Your task to perform on an android device: Add "amazon basics triple a" to the cart on ebay, then select checkout. Image 0: 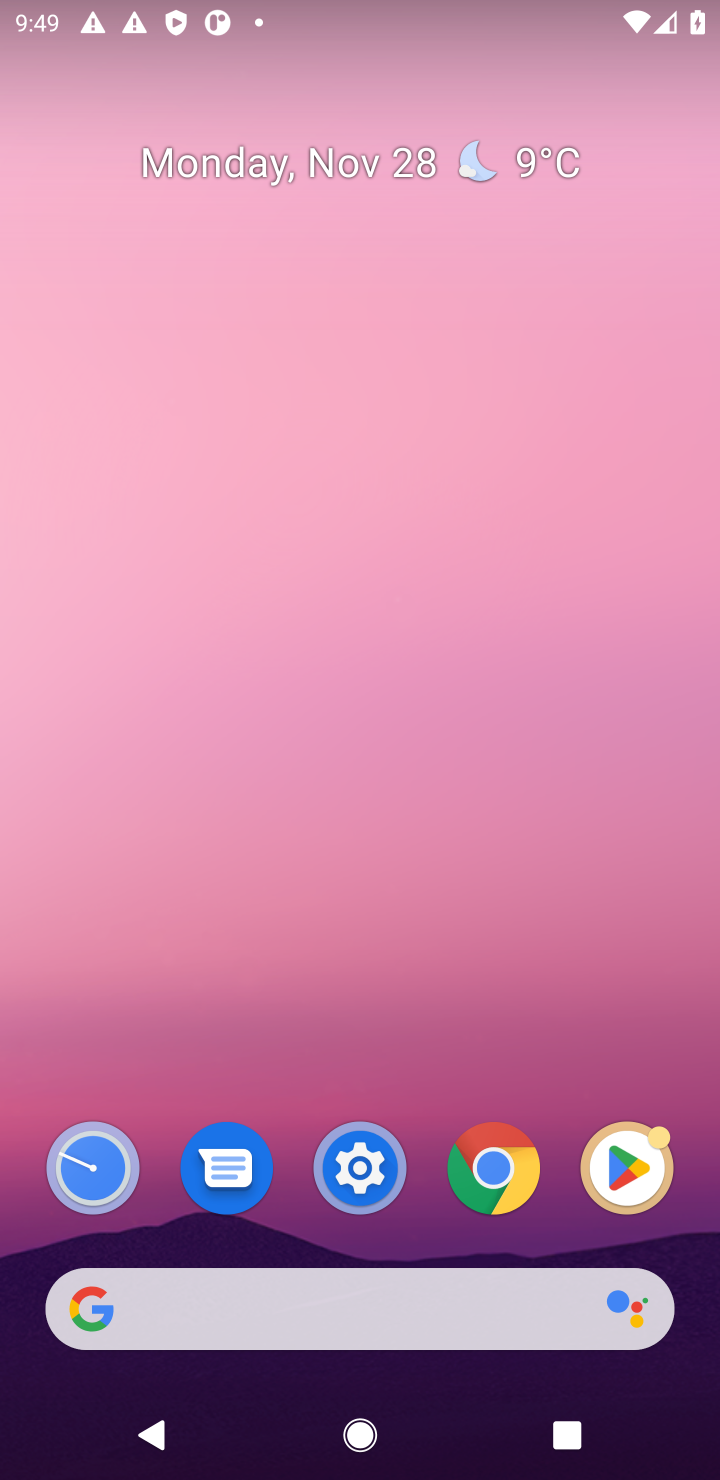
Step 0: click (429, 1334)
Your task to perform on an android device: Add "amazon basics triple a" to the cart on ebay, then select checkout. Image 1: 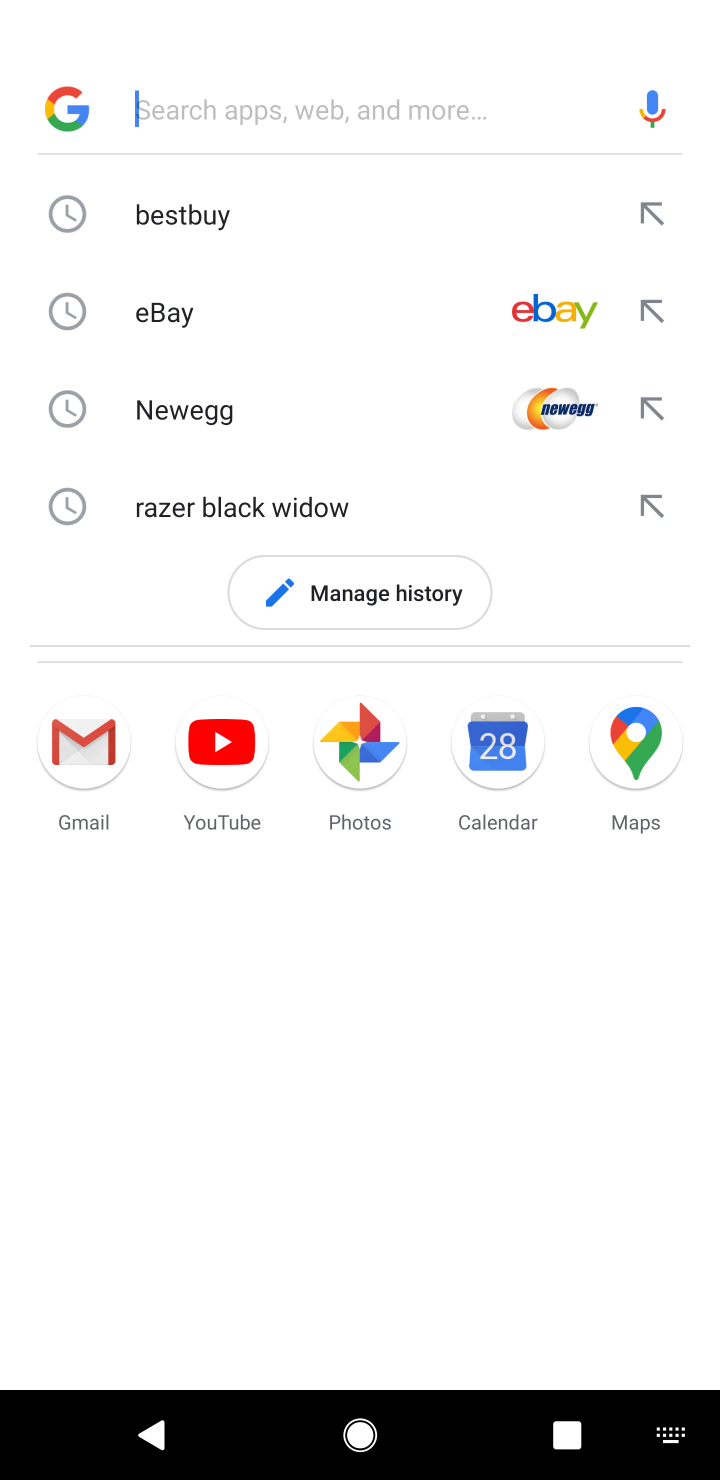
Step 1: type "amazon"
Your task to perform on an android device: Add "amazon basics triple a" to the cart on ebay, then select checkout. Image 2: 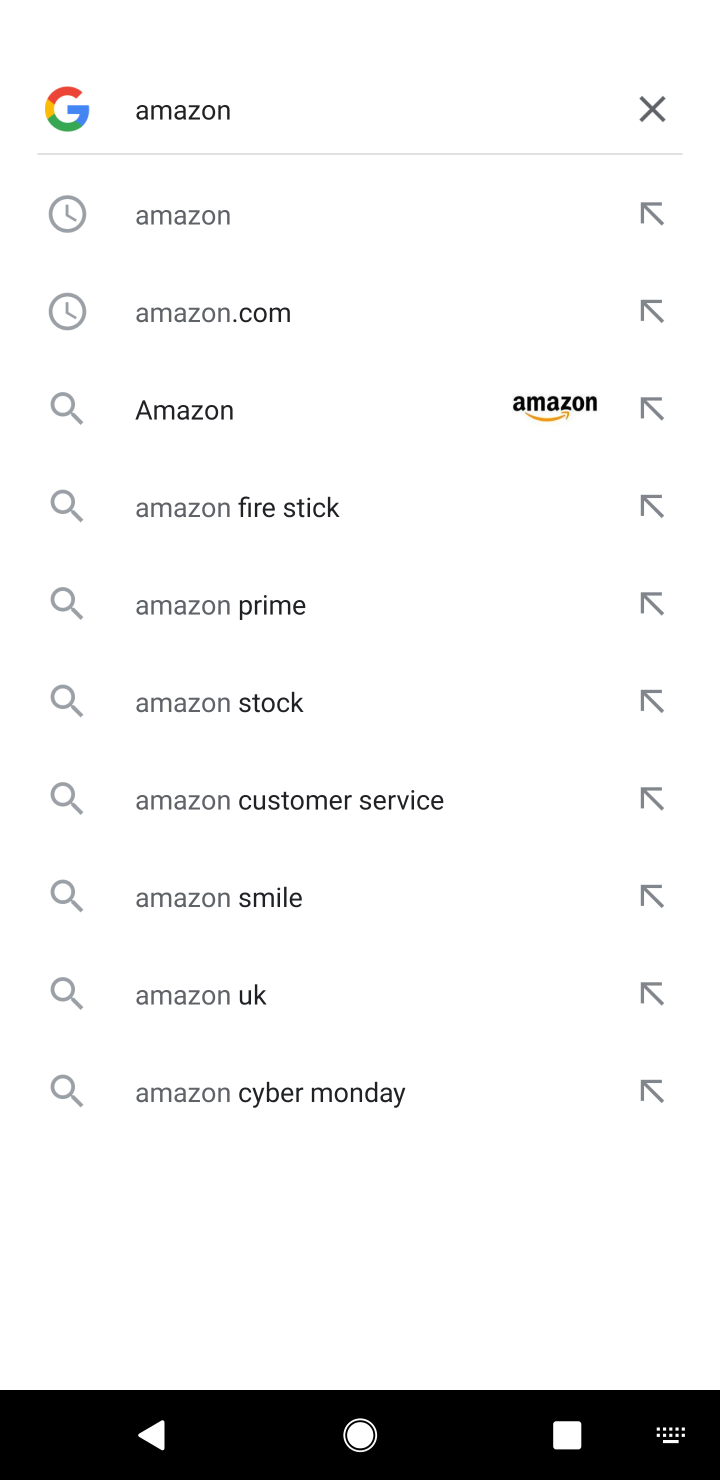
Step 2: click (408, 426)
Your task to perform on an android device: Add "amazon basics triple a" to the cart on ebay, then select checkout. Image 3: 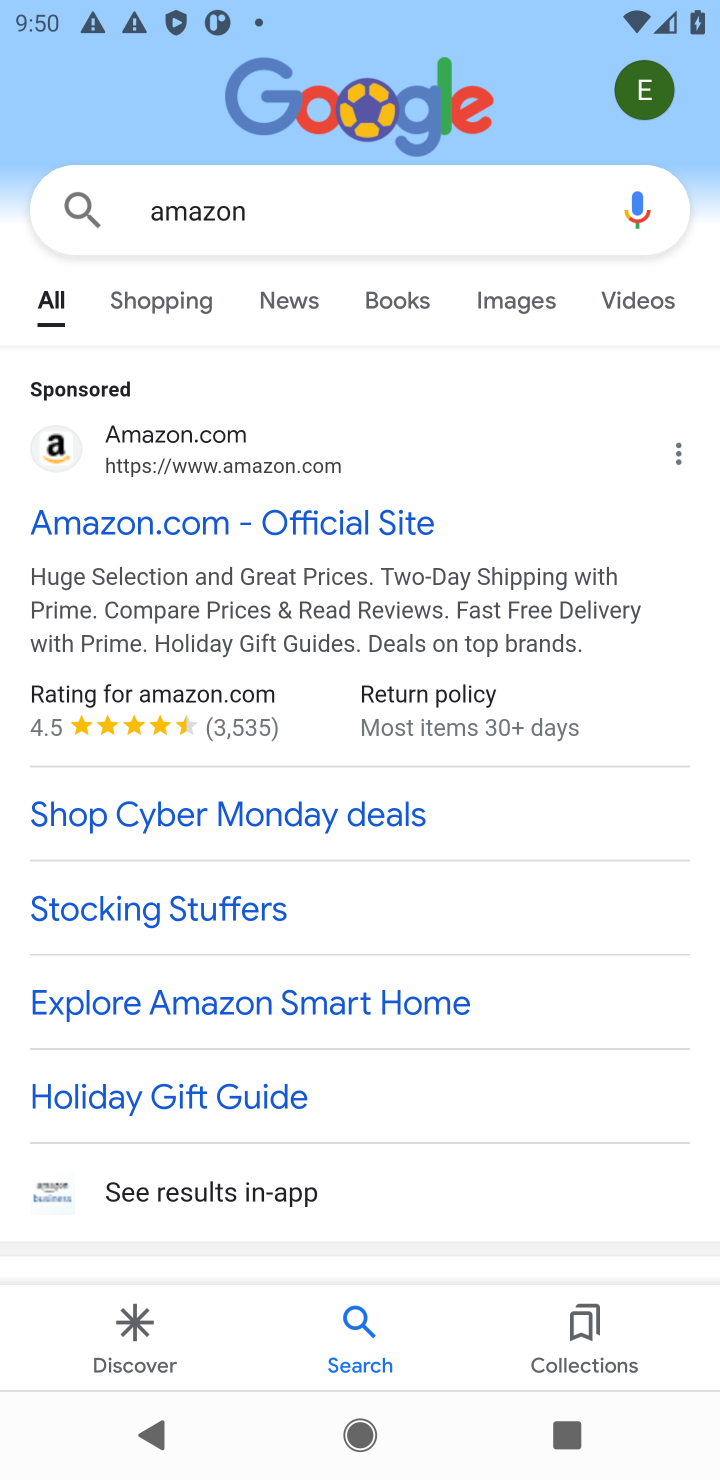
Step 3: click (353, 491)
Your task to perform on an android device: Add "amazon basics triple a" to the cart on ebay, then select checkout. Image 4: 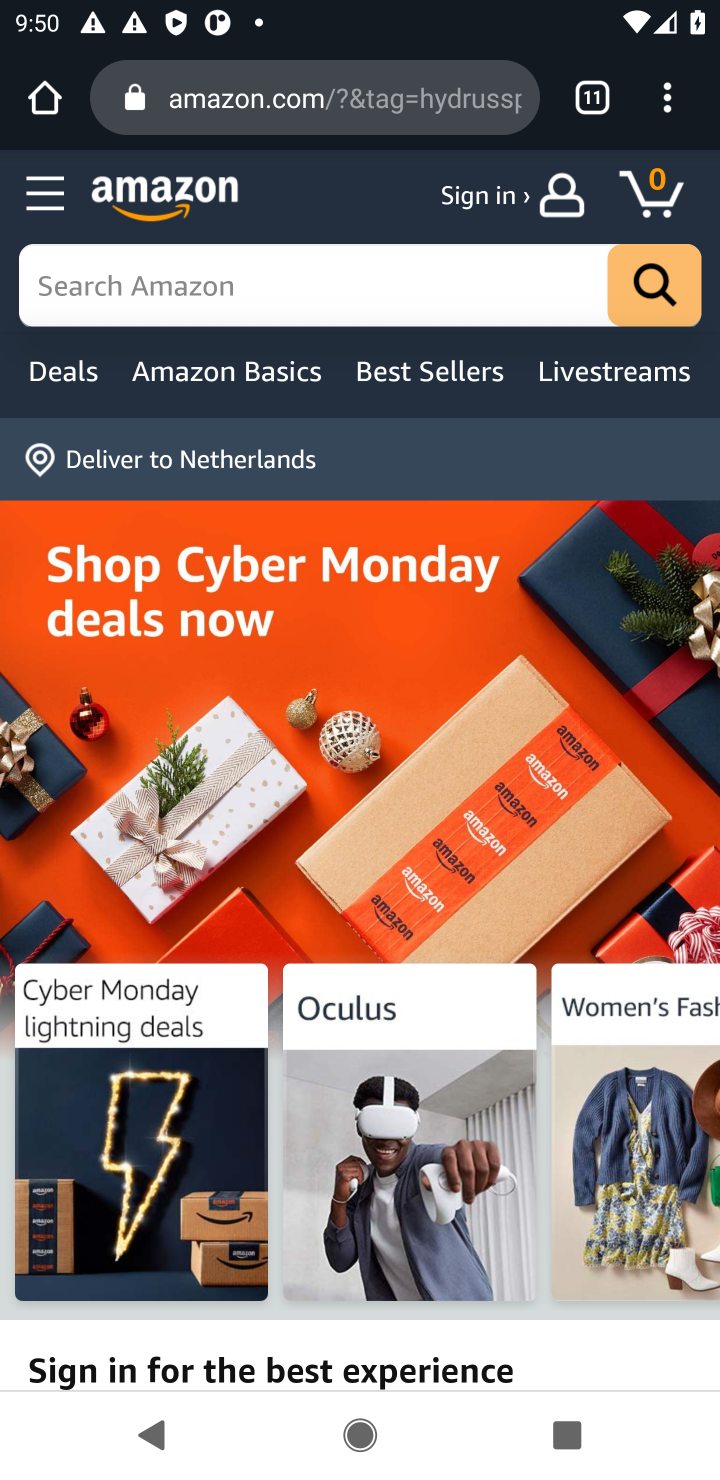
Step 4: click (180, 251)
Your task to perform on an android device: Add "amazon basics triple a" to the cart on ebay, then select checkout. Image 5: 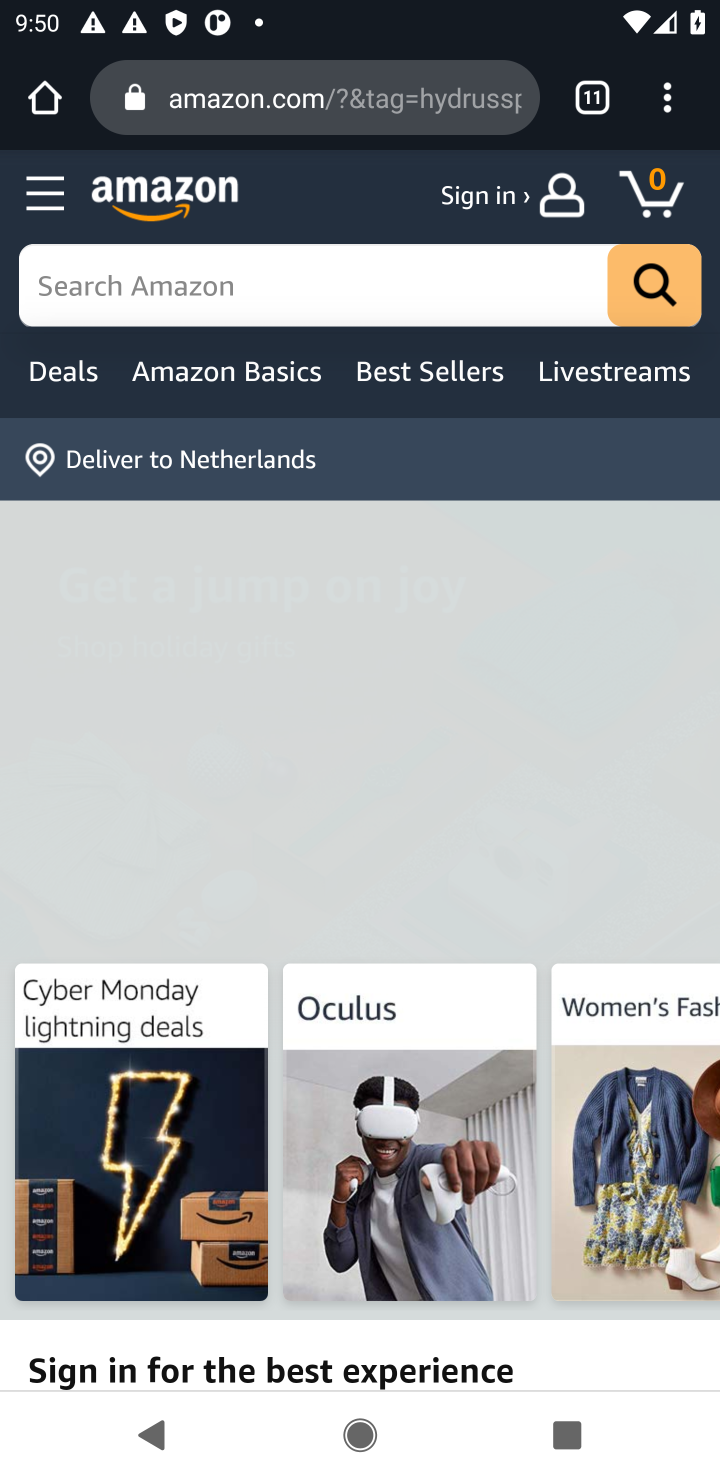
Step 5: click (197, 267)
Your task to perform on an android device: Add "amazon basics triple a" to the cart on ebay, then select checkout. Image 6: 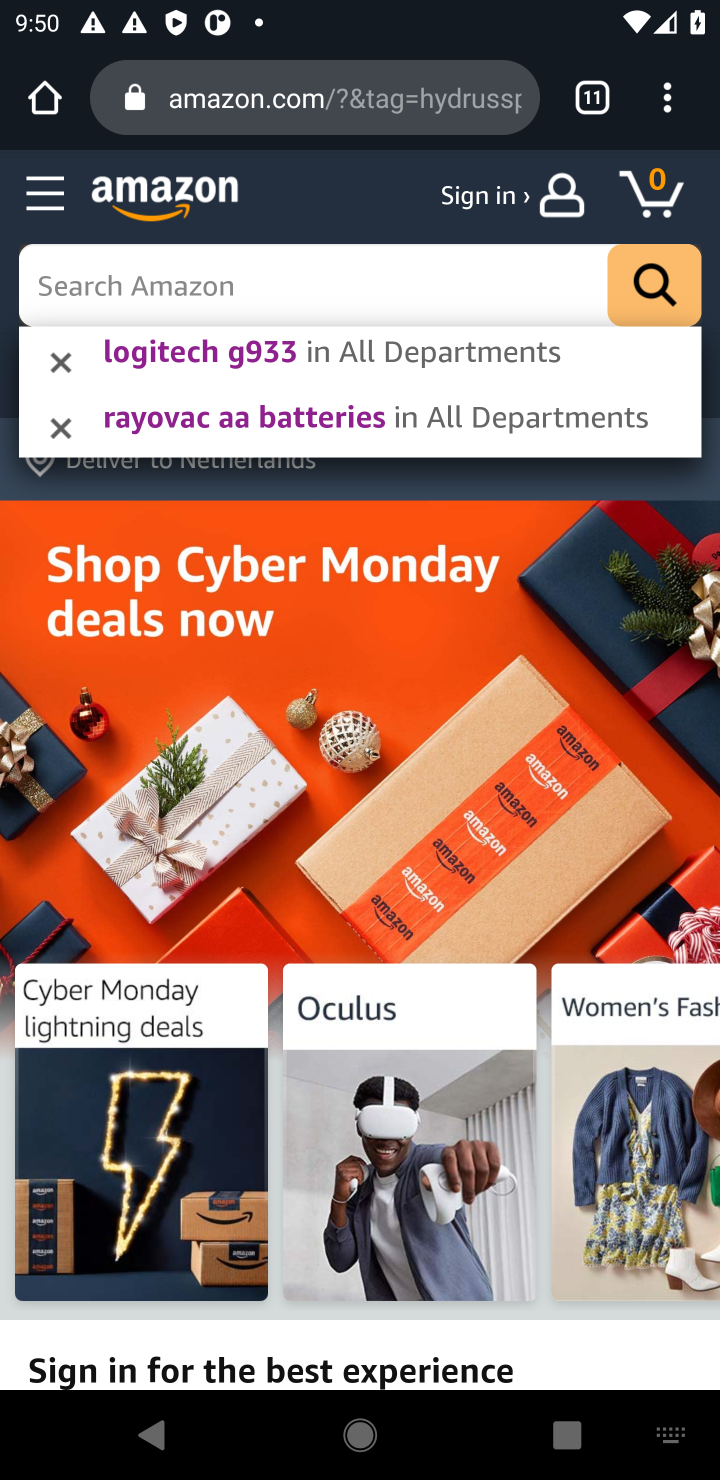
Step 6: type "amazon basic triple a"
Your task to perform on an android device: Add "amazon basics triple a" to the cart on ebay, then select checkout. Image 7: 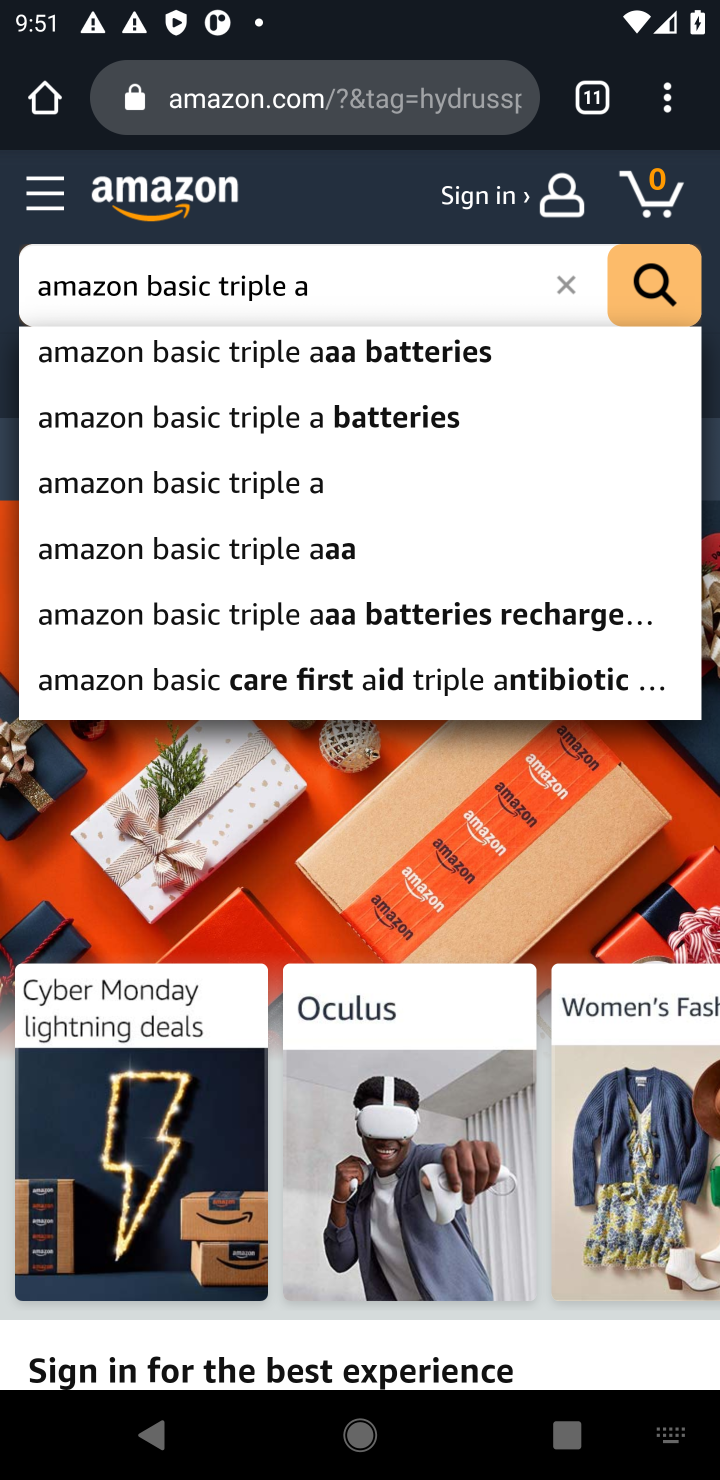
Step 7: click (238, 373)
Your task to perform on an android device: Add "amazon basics triple a" to the cart on ebay, then select checkout. Image 8: 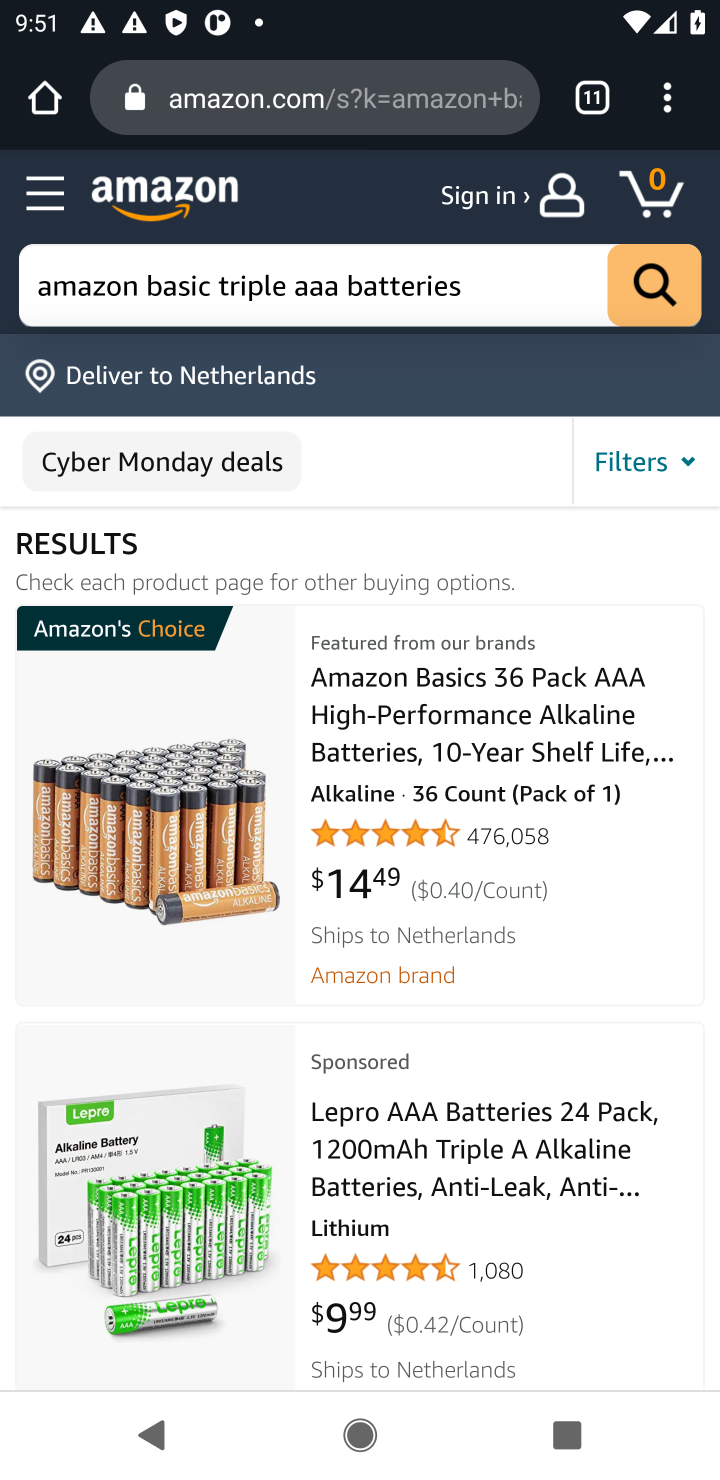
Step 8: click (455, 729)
Your task to perform on an android device: Add "amazon basics triple a" to the cart on ebay, then select checkout. Image 9: 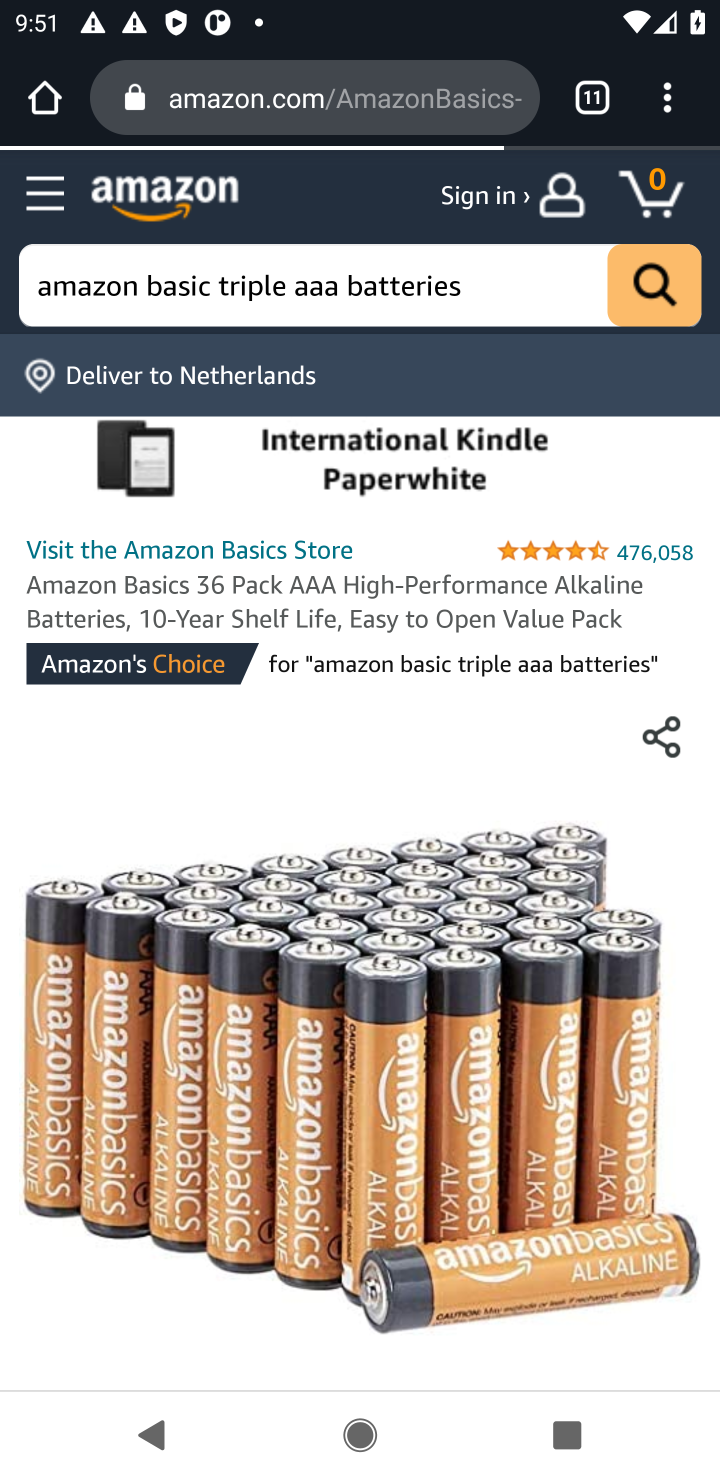
Step 9: task complete